Your task to perform on an android device: Search for usb-c on newegg, select the first entry, and add it to the cart. Image 0: 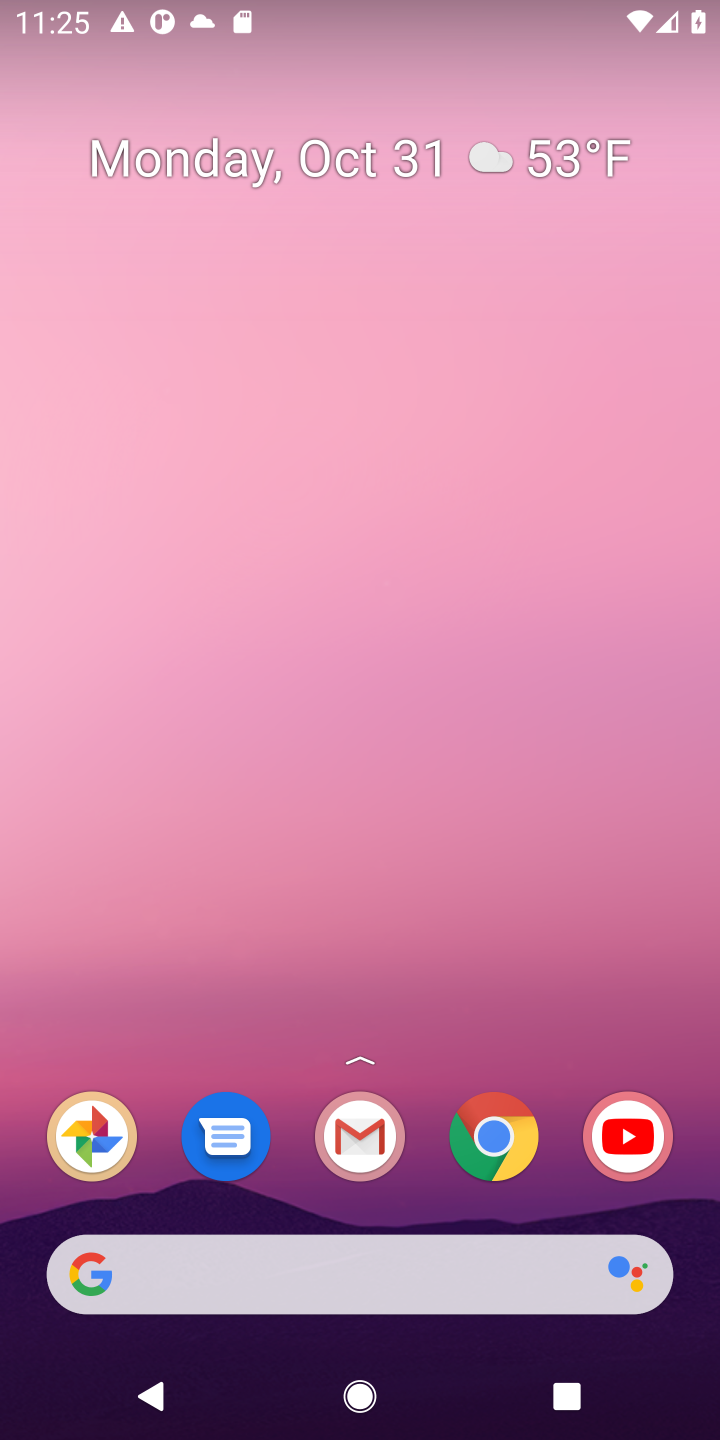
Step 0: press home button
Your task to perform on an android device: Search for usb-c on newegg, select the first entry, and add it to the cart. Image 1: 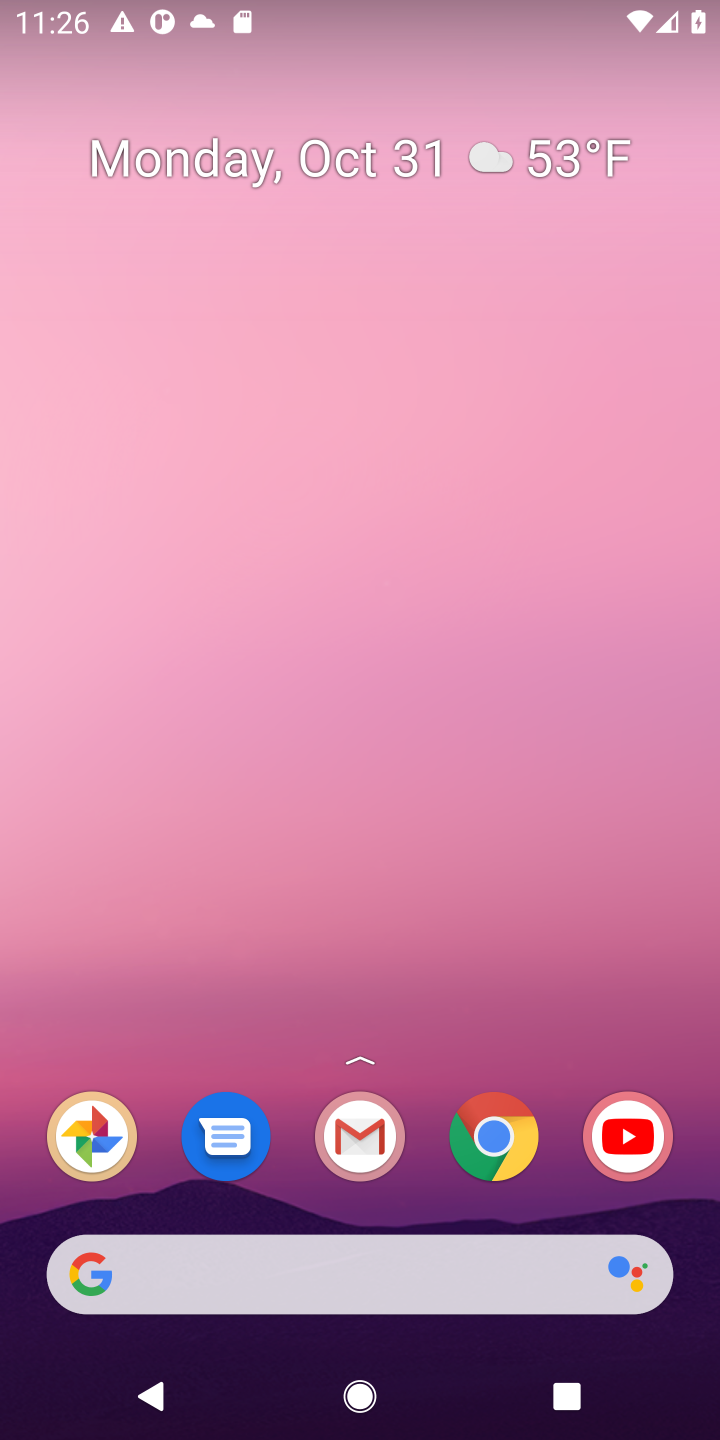
Step 1: click (135, 1272)
Your task to perform on an android device: Search for usb-c on newegg, select the first entry, and add it to the cart. Image 2: 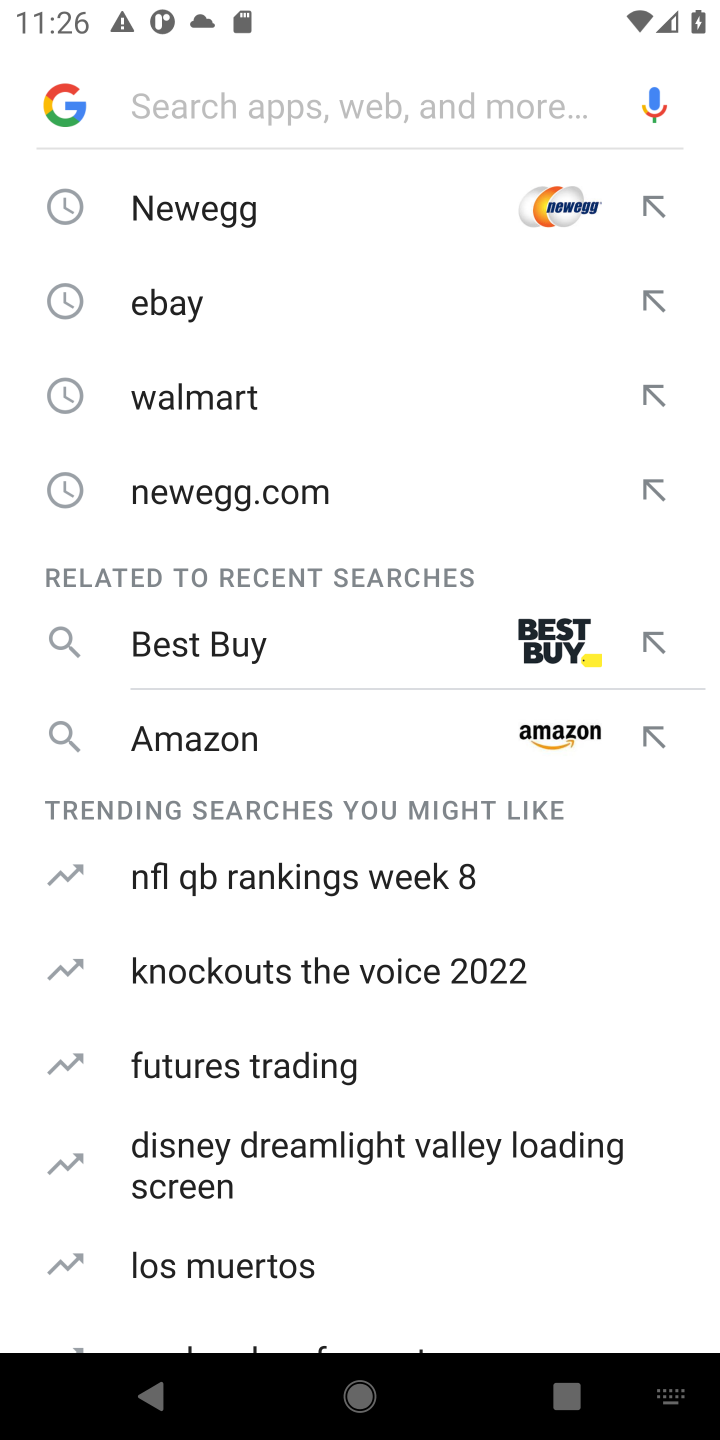
Step 2: type "newegg"
Your task to perform on an android device: Search for usb-c on newegg, select the first entry, and add it to the cart. Image 3: 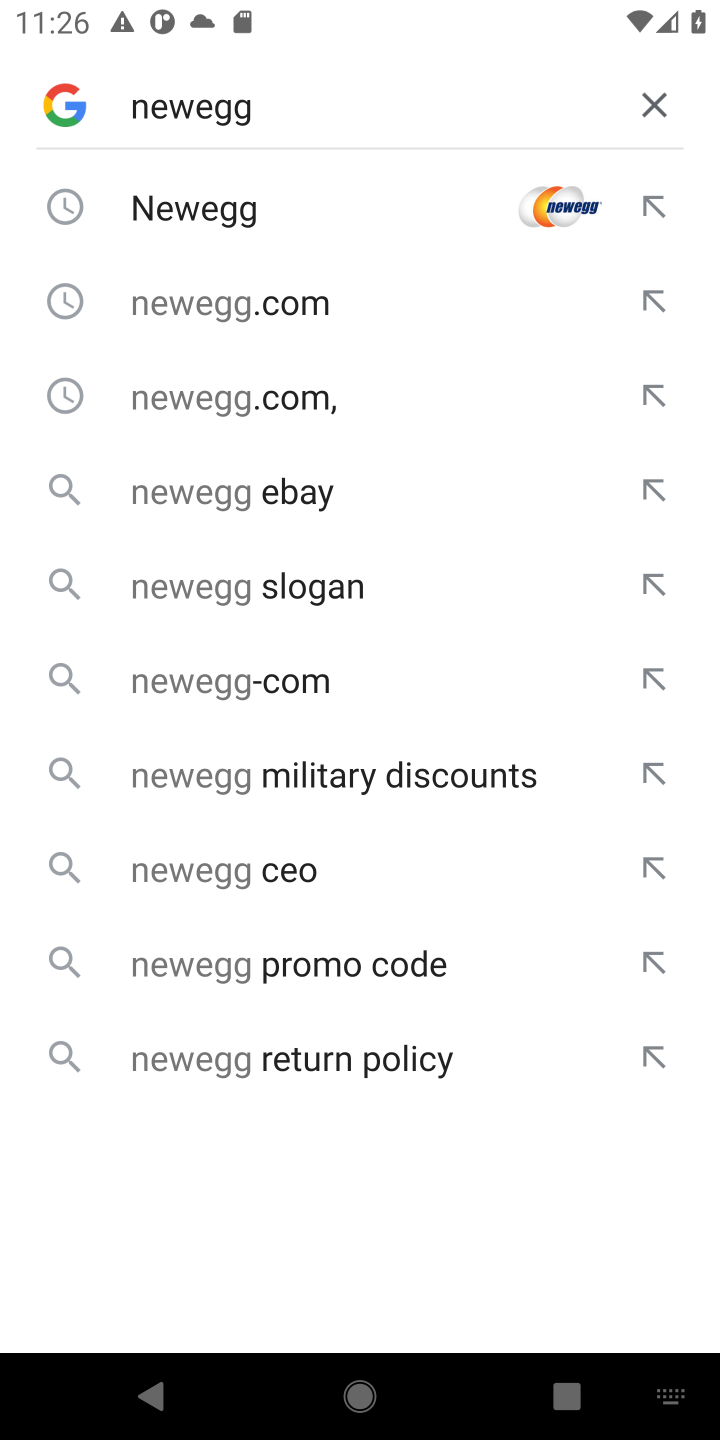
Step 3: press enter
Your task to perform on an android device: Search for usb-c on newegg, select the first entry, and add it to the cart. Image 4: 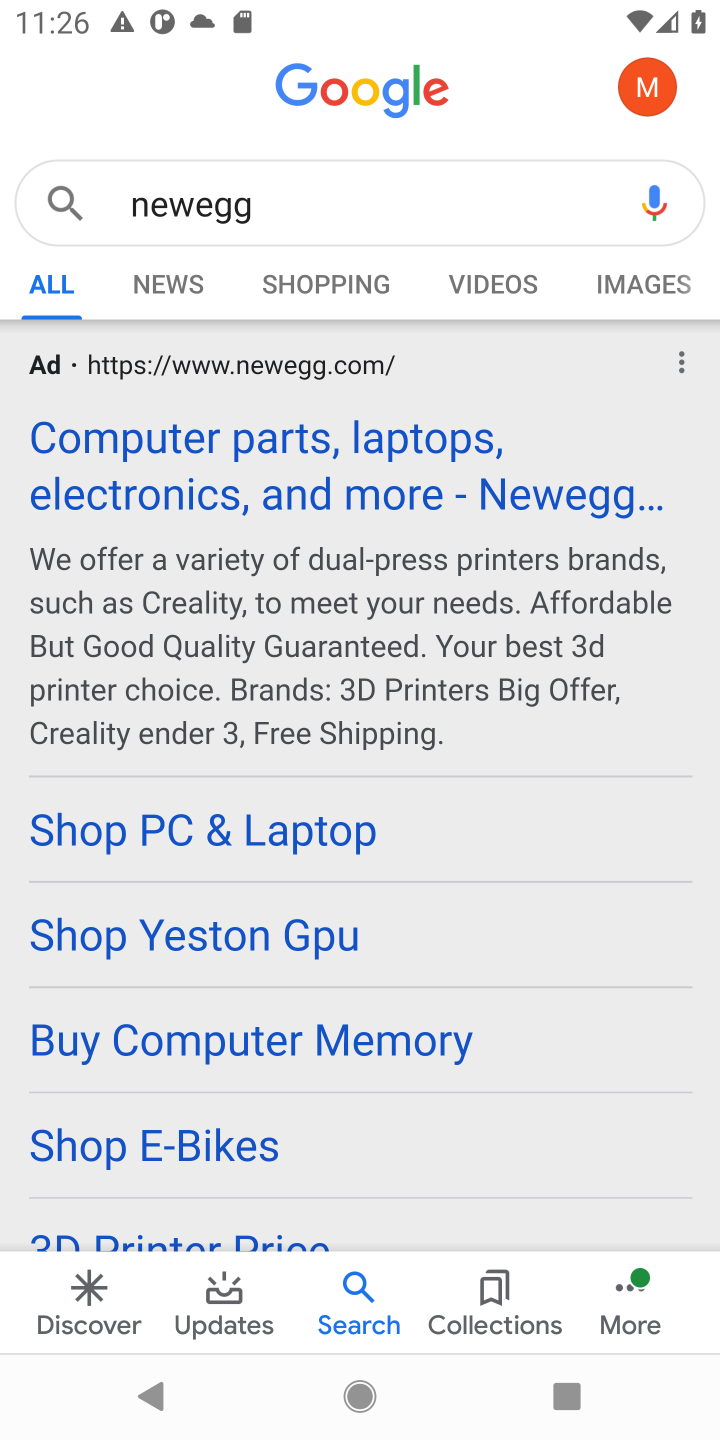
Step 4: drag from (583, 1084) to (637, 639)
Your task to perform on an android device: Search for usb-c on newegg, select the first entry, and add it to the cart. Image 5: 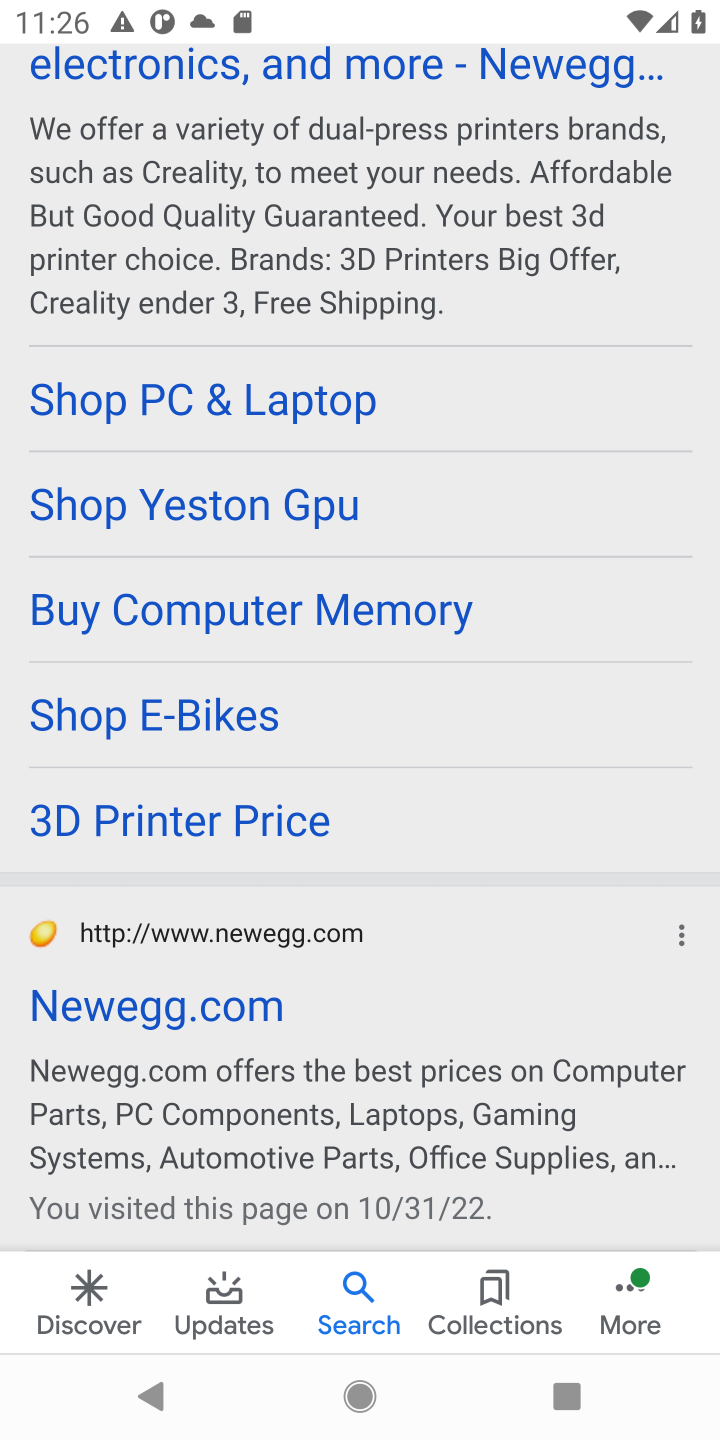
Step 5: click (203, 1007)
Your task to perform on an android device: Search for usb-c on newegg, select the first entry, and add it to the cart. Image 6: 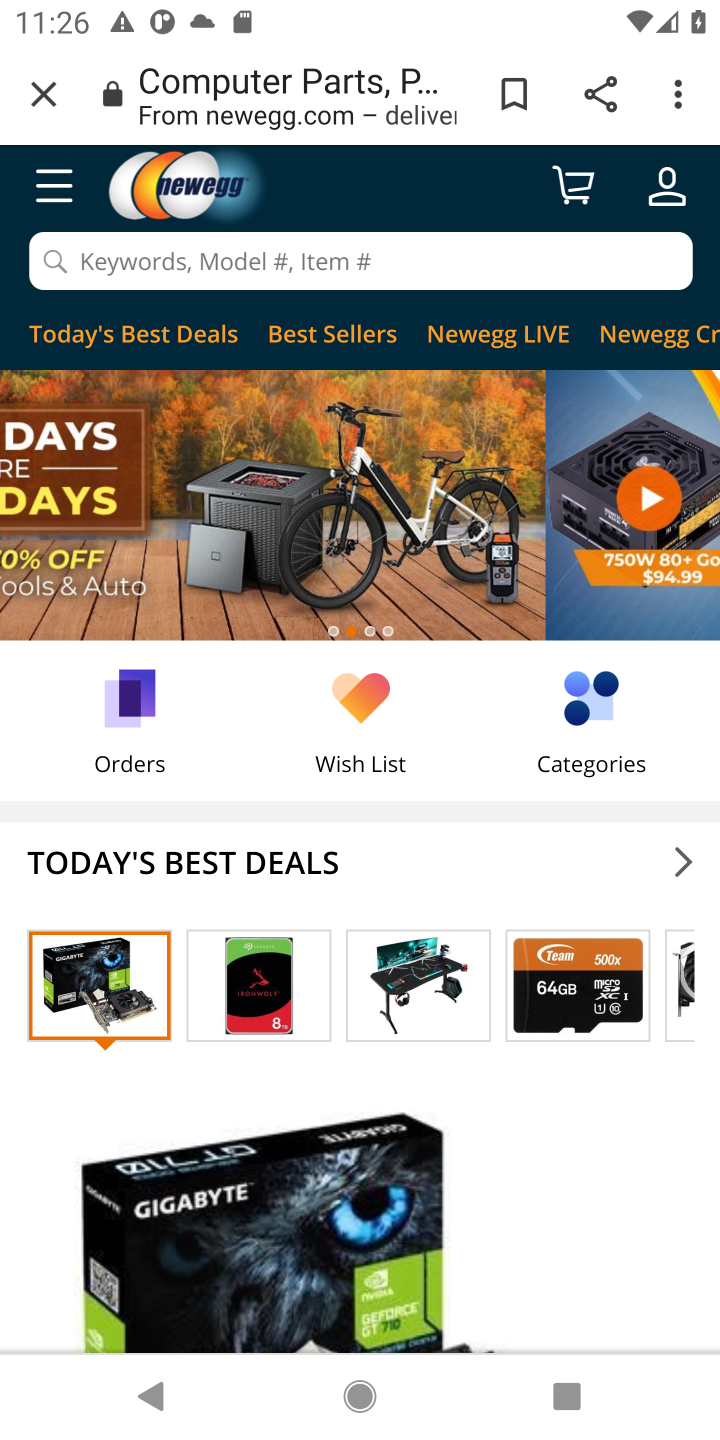
Step 6: click (92, 253)
Your task to perform on an android device: Search for usb-c on newegg, select the first entry, and add it to the cart. Image 7: 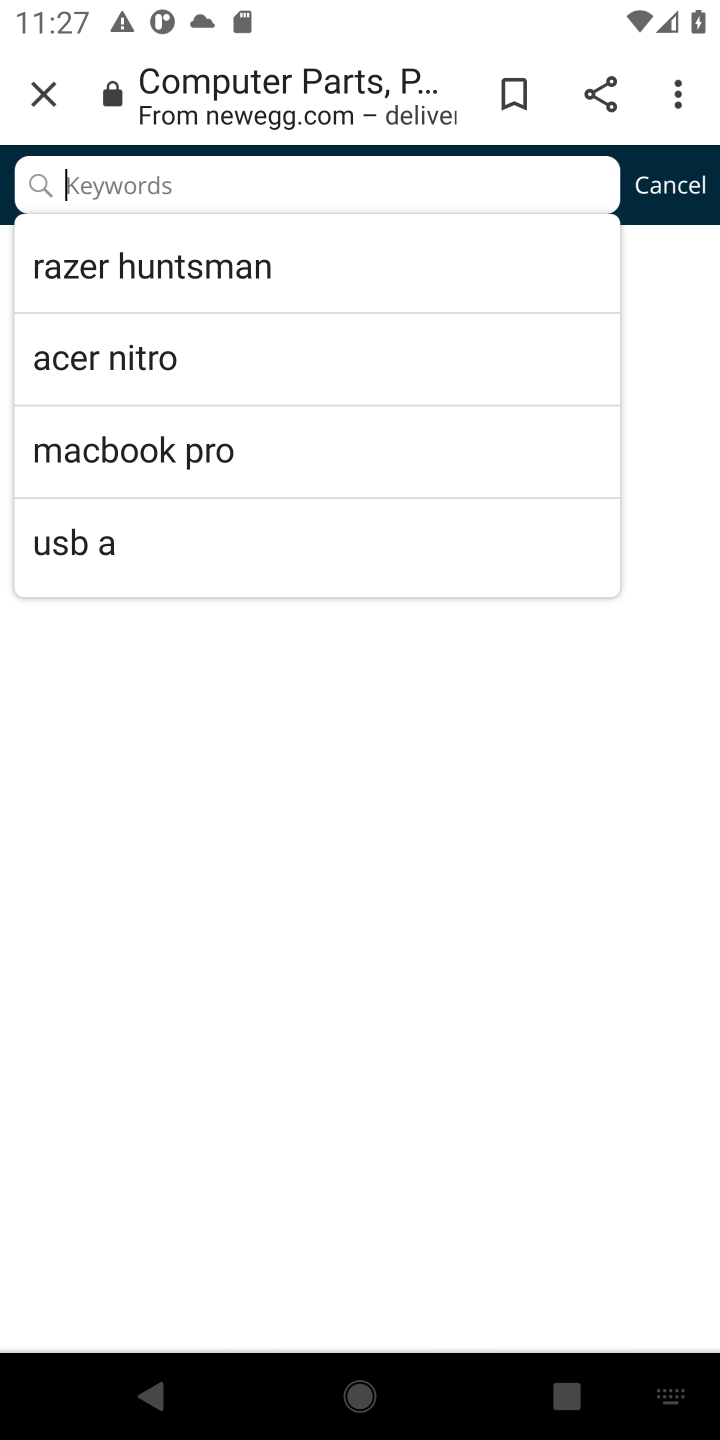
Step 7: type "usb-c"
Your task to perform on an android device: Search for usb-c on newegg, select the first entry, and add it to the cart. Image 8: 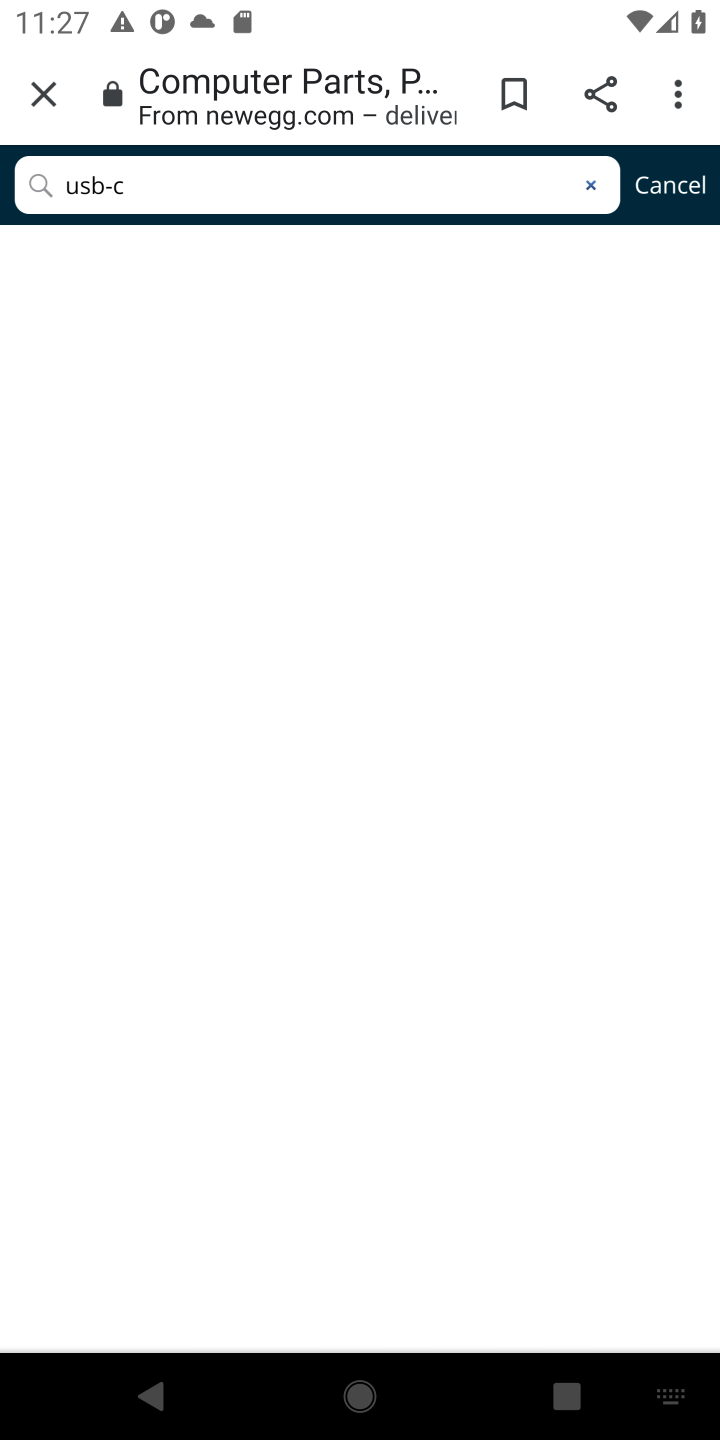
Step 8: press enter
Your task to perform on an android device: Search for usb-c on newegg, select the first entry, and add it to the cart. Image 9: 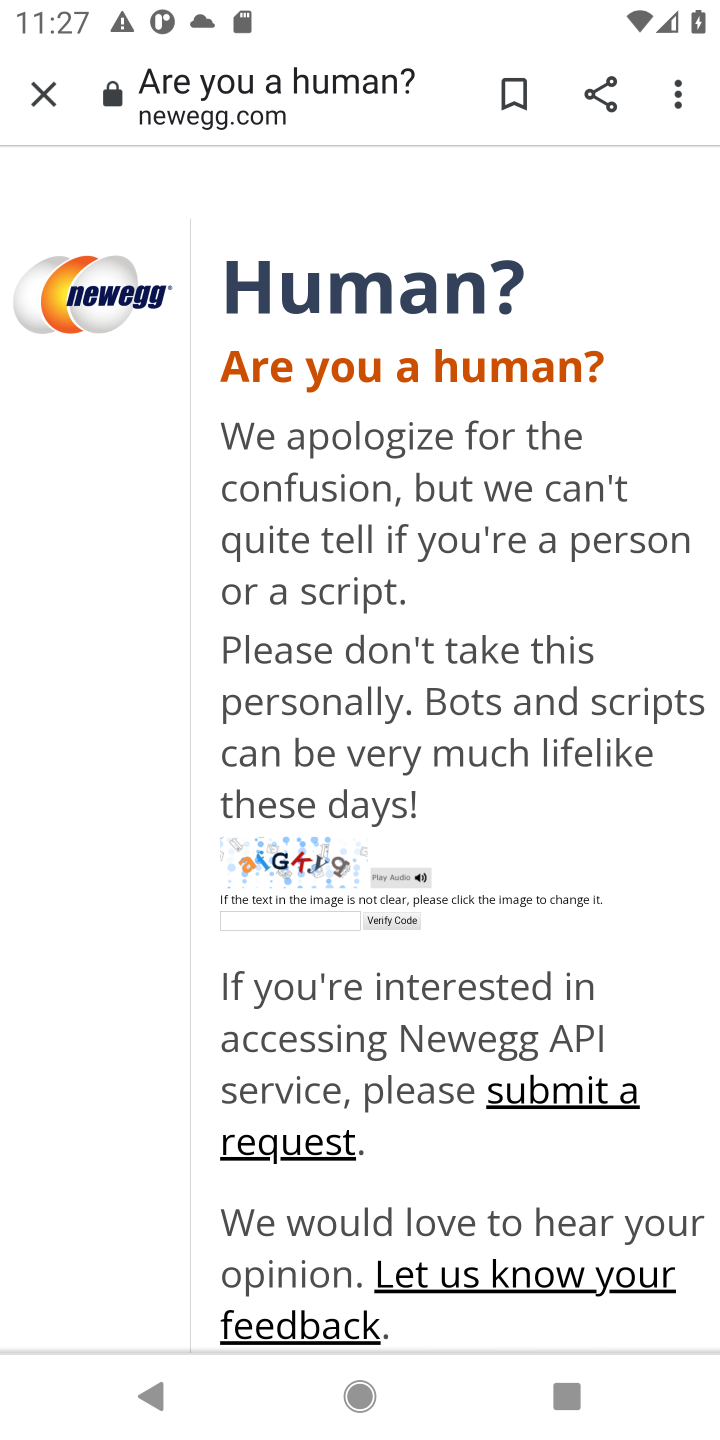
Step 9: task complete